Your task to perform on an android device: open a new tab in the chrome app Image 0: 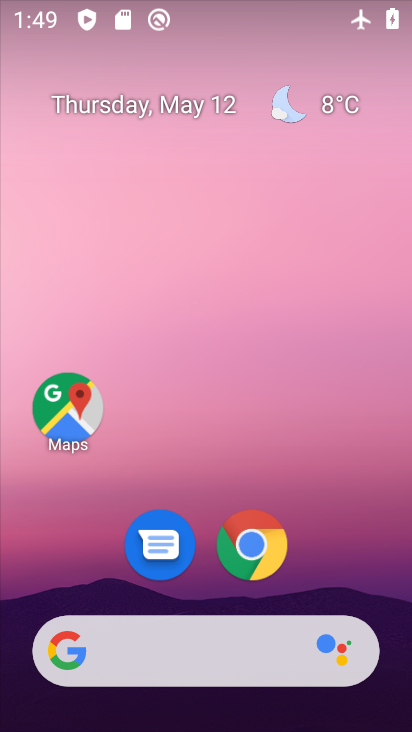
Step 0: click (253, 542)
Your task to perform on an android device: open a new tab in the chrome app Image 1: 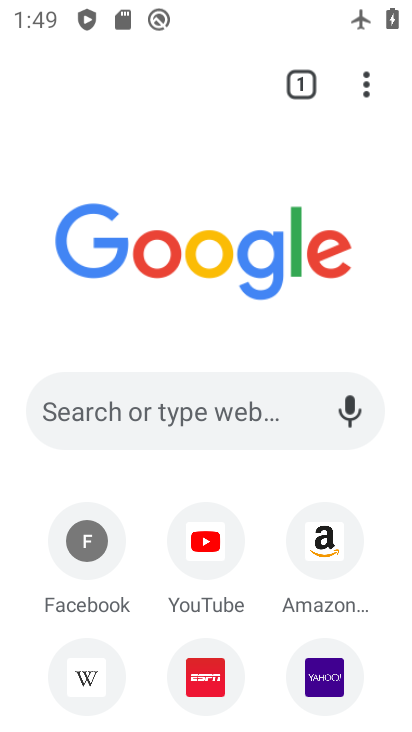
Step 1: click (361, 93)
Your task to perform on an android device: open a new tab in the chrome app Image 2: 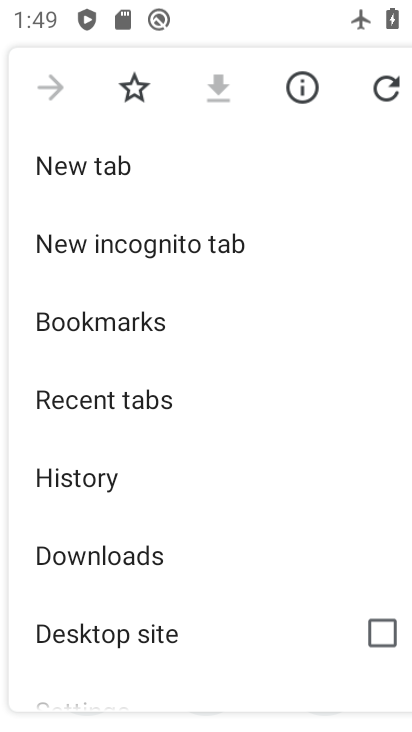
Step 2: click (80, 165)
Your task to perform on an android device: open a new tab in the chrome app Image 3: 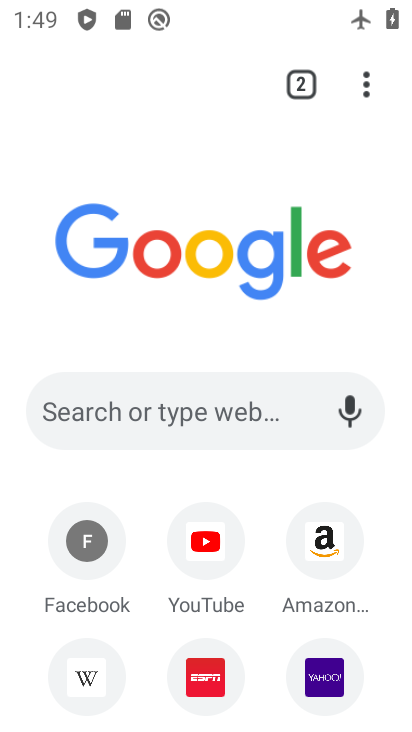
Step 3: task complete